Your task to perform on an android device: Open Youtube and go to "Your channel" Image 0: 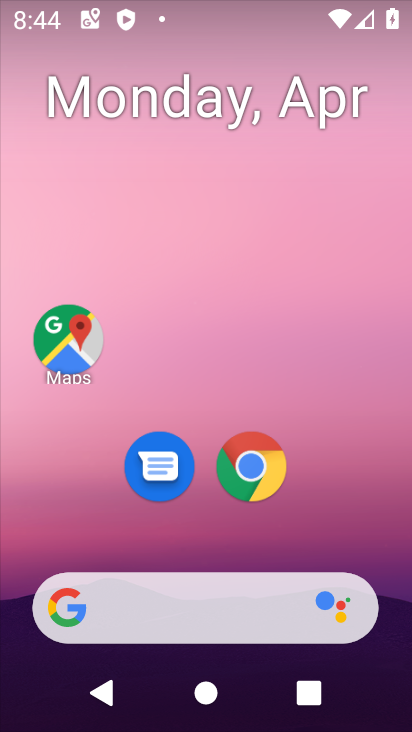
Step 0: drag from (211, 540) to (206, 173)
Your task to perform on an android device: Open Youtube and go to "Your channel" Image 1: 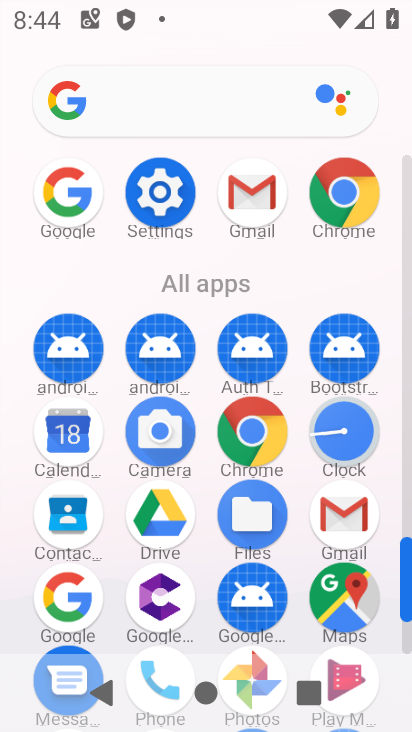
Step 1: drag from (209, 562) to (212, 295)
Your task to perform on an android device: Open Youtube and go to "Your channel" Image 2: 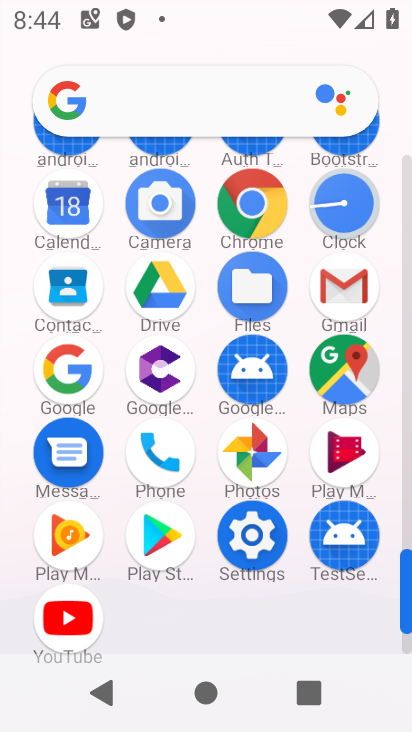
Step 2: click (74, 619)
Your task to perform on an android device: Open Youtube and go to "Your channel" Image 3: 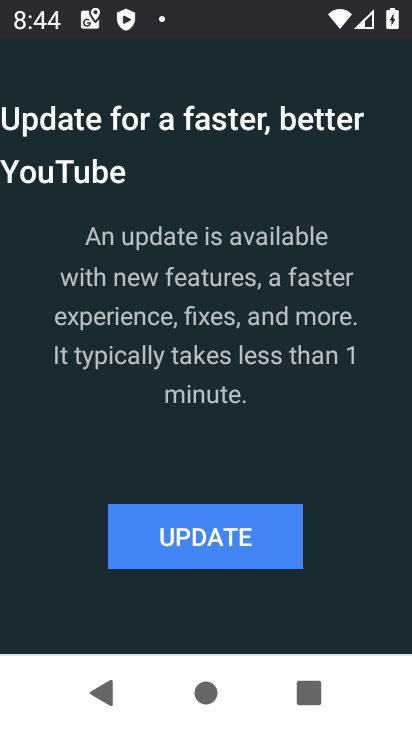
Step 3: click (211, 537)
Your task to perform on an android device: Open Youtube and go to "Your channel" Image 4: 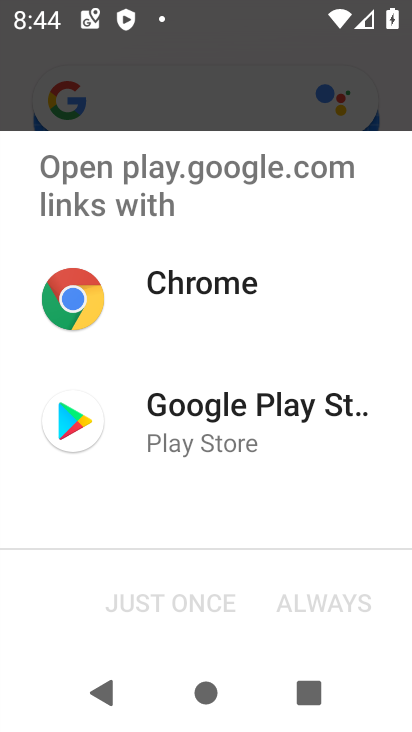
Step 4: click (199, 402)
Your task to perform on an android device: Open Youtube and go to "Your channel" Image 5: 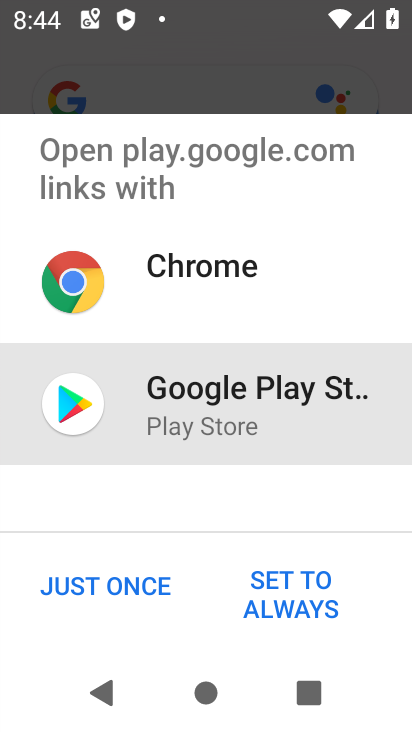
Step 5: click (129, 581)
Your task to perform on an android device: Open Youtube and go to "Your channel" Image 6: 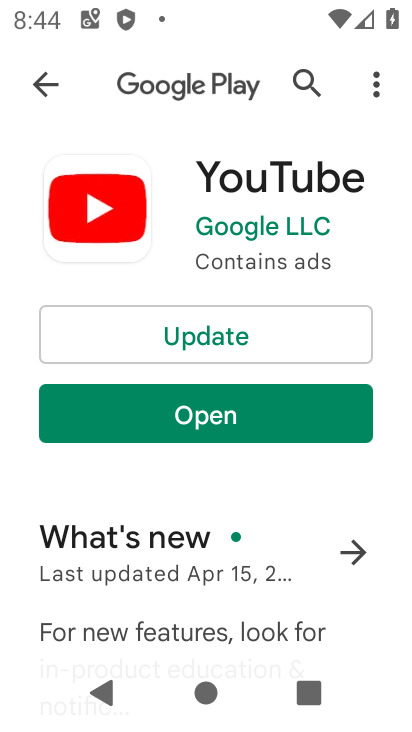
Step 6: click (239, 349)
Your task to perform on an android device: Open Youtube and go to "Your channel" Image 7: 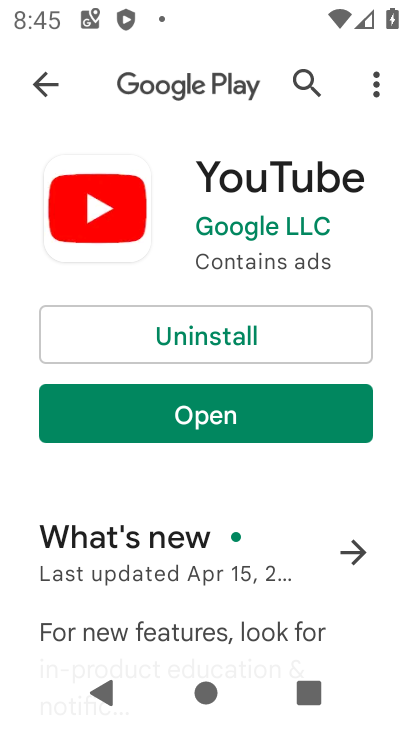
Step 7: click (207, 416)
Your task to perform on an android device: Open Youtube and go to "Your channel" Image 8: 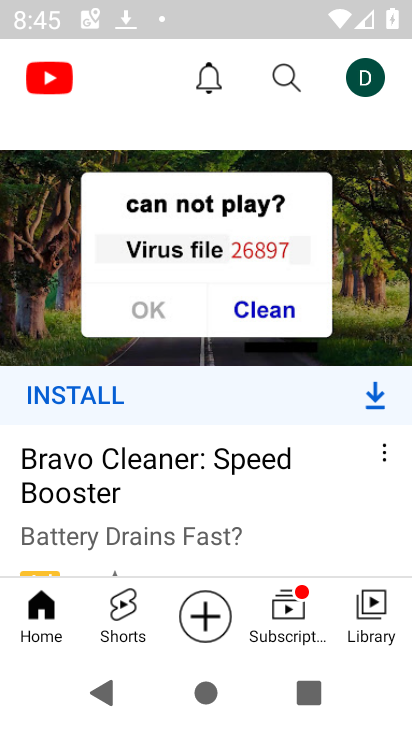
Step 8: click (376, 75)
Your task to perform on an android device: Open Youtube and go to "Your channel" Image 9: 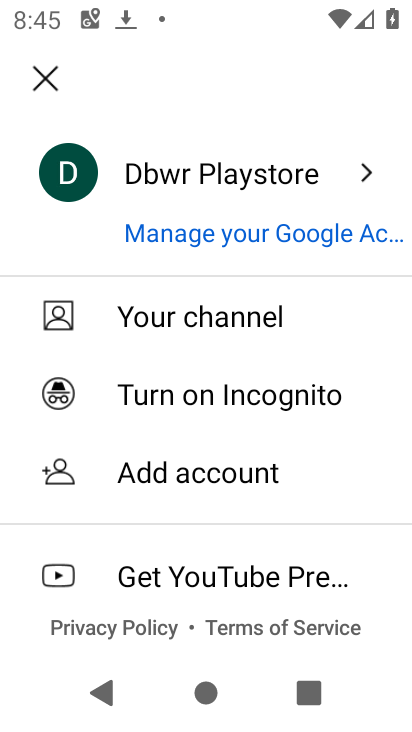
Step 9: click (243, 320)
Your task to perform on an android device: Open Youtube and go to "Your channel" Image 10: 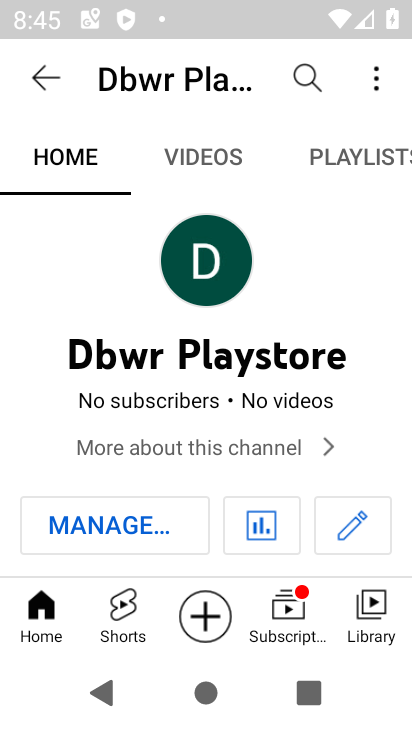
Step 10: task complete